Your task to perform on an android device: Go to Amazon Image 0: 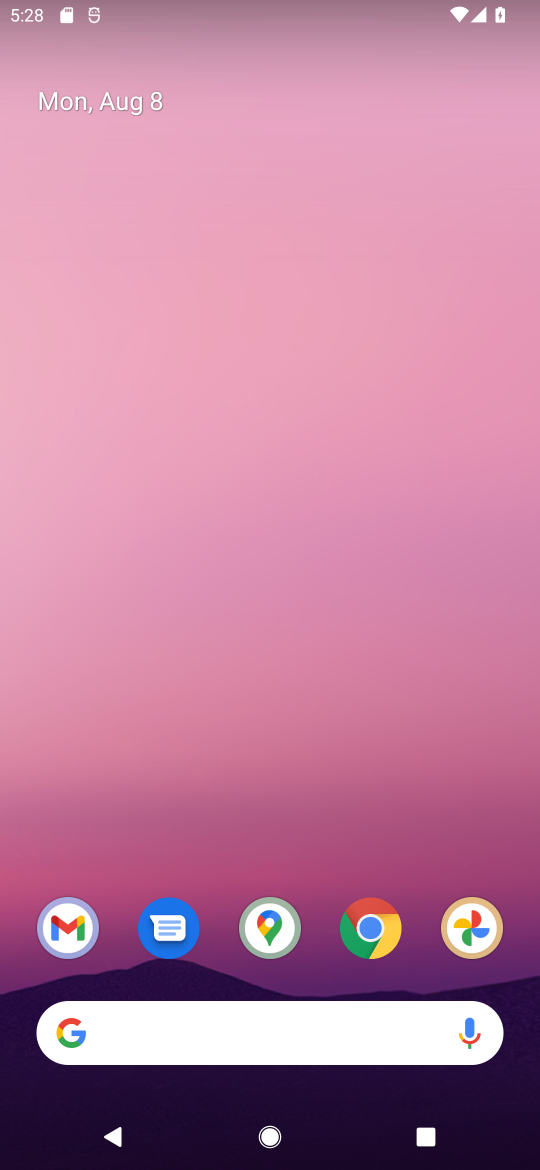
Step 0: drag from (215, 965) to (238, 532)
Your task to perform on an android device: Go to Amazon Image 1: 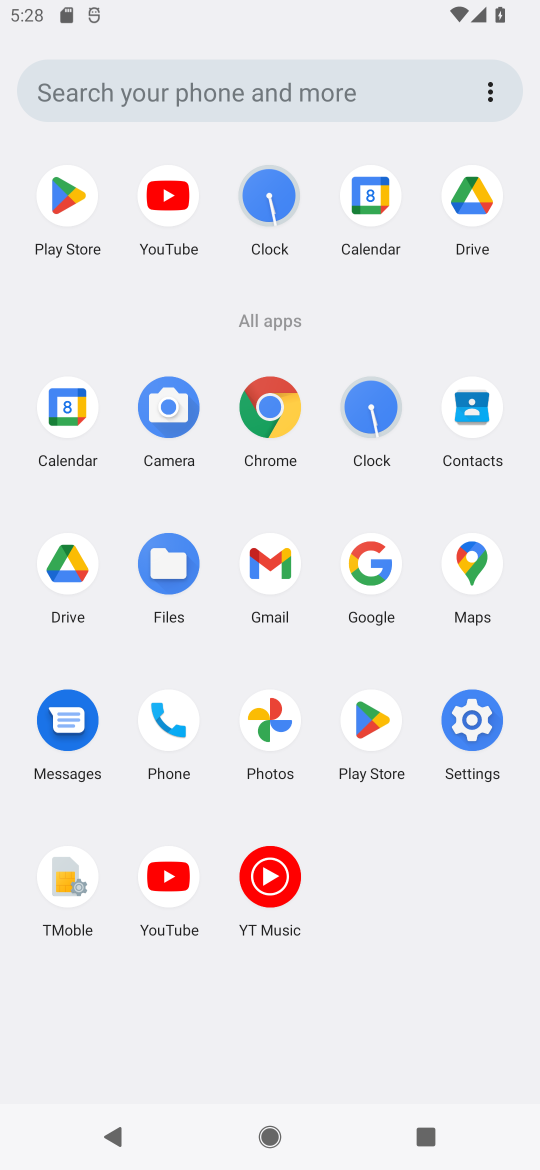
Step 1: click (258, 420)
Your task to perform on an android device: Go to Amazon Image 2: 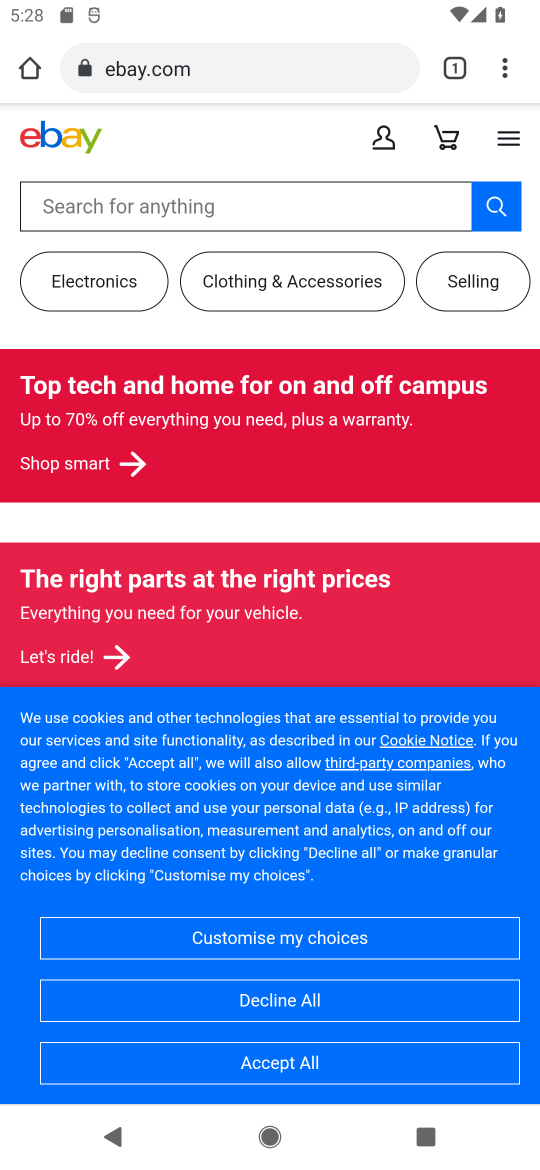
Step 2: click (168, 56)
Your task to perform on an android device: Go to Amazon Image 3: 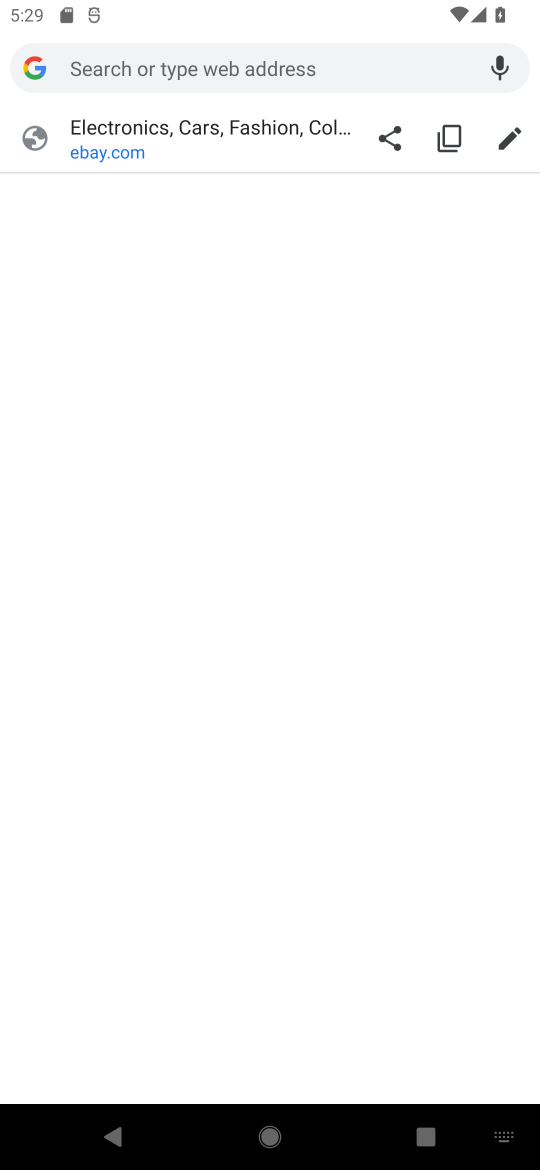
Step 3: type "Amazon.com"
Your task to perform on an android device: Go to Amazon Image 4: 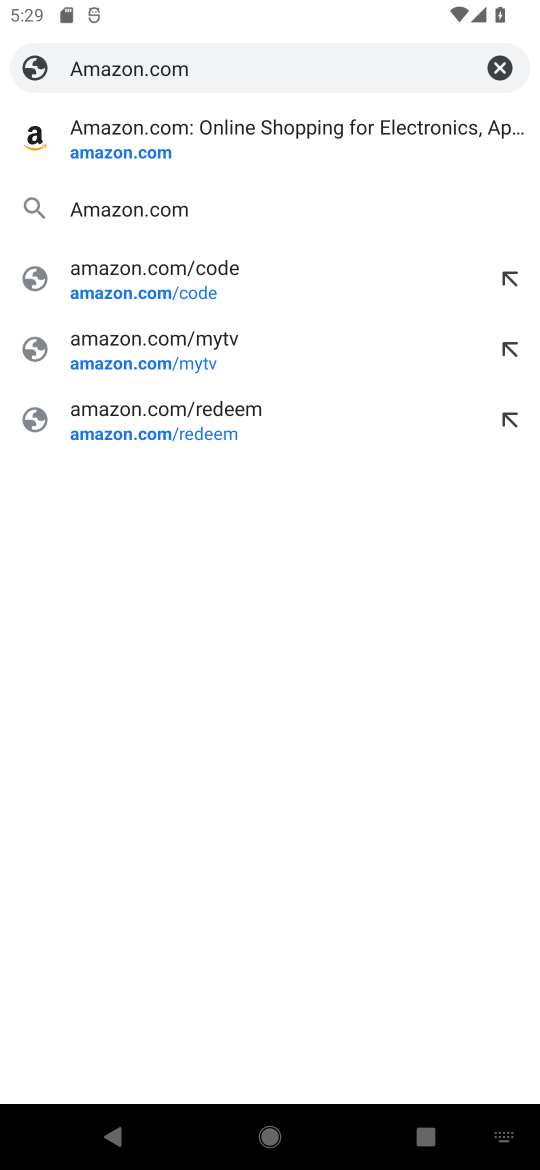
Step 4: click (138, 112)
Your task to perform on an android device: Go to Amazon Image 5: 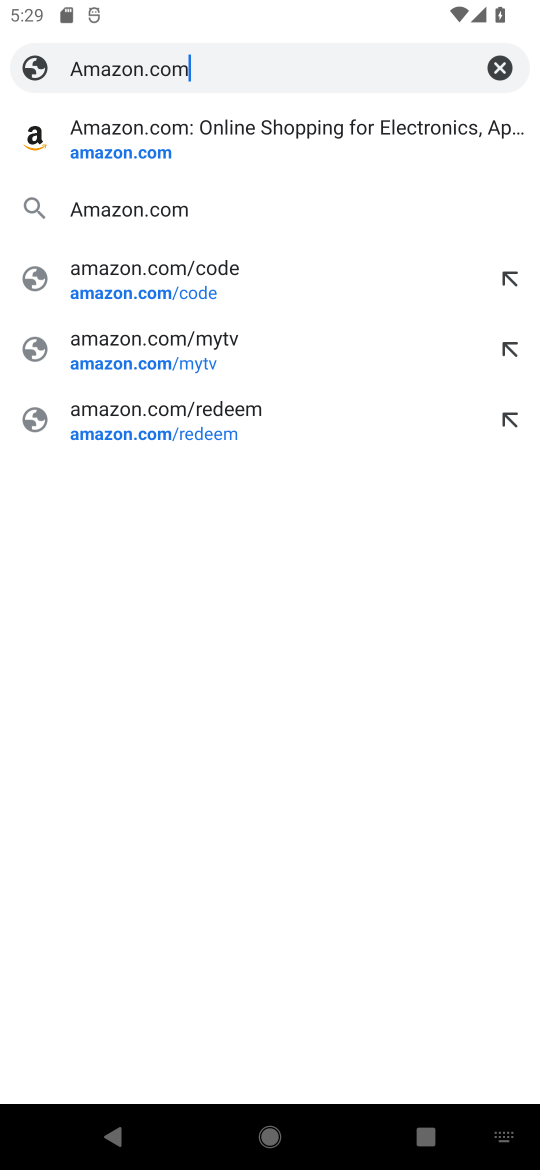
Step 5: click (126, 146)
Your task to perform on an android device: Go to Amazon Image 6: 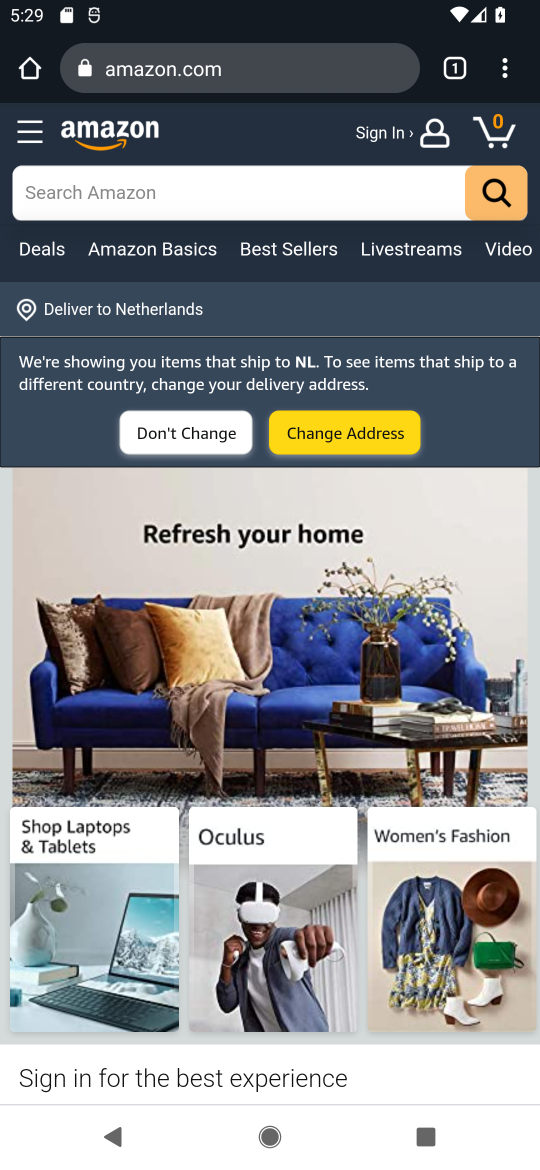
Step 6: task complete